Your task to perform on an android device: Open the stopwatch Image 0: 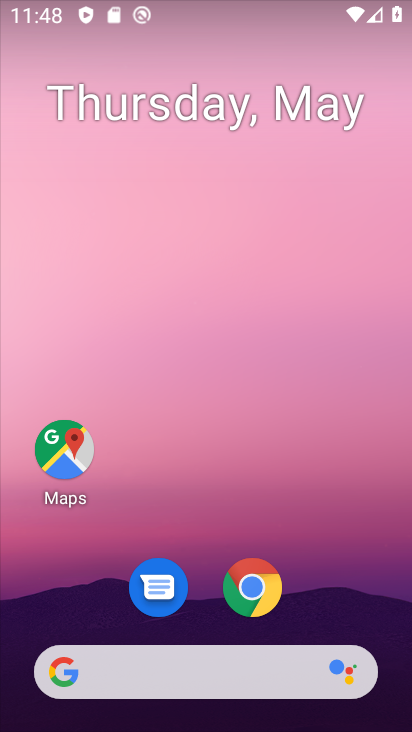
Step 0: drag from (235, 546) to (299, 20)
Your task to perform on an android device: Open the stopwatch Image 1: 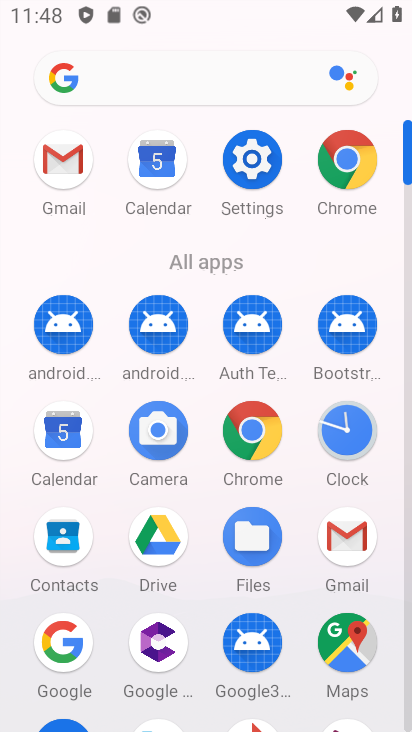
Step 1: click (347, 423)
Your task to perform on an android device: Open the stopwatch Image 2: 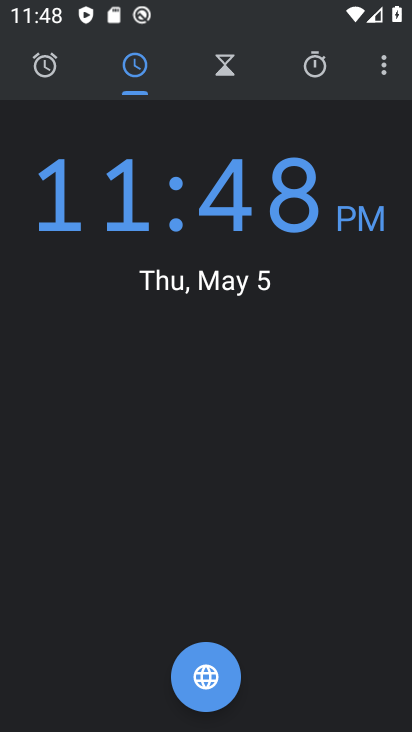
Step 2: click (315, 62)
Your task to perform on an android device: Open the stopwatch Image 3: 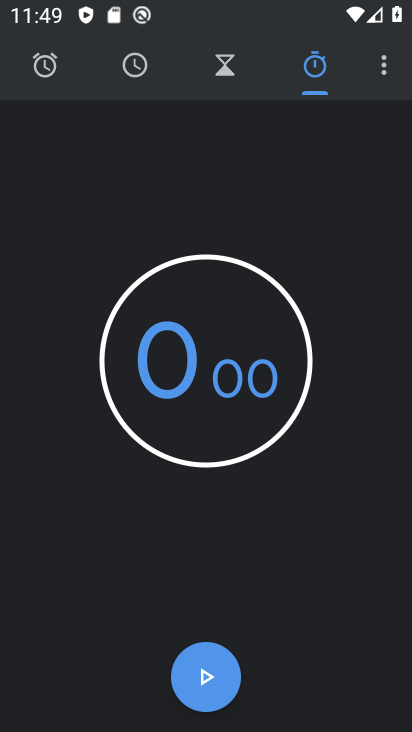
Step 3: task complete